Your task to perform on an android device: move an email to a new category in the gmail app Image 0: 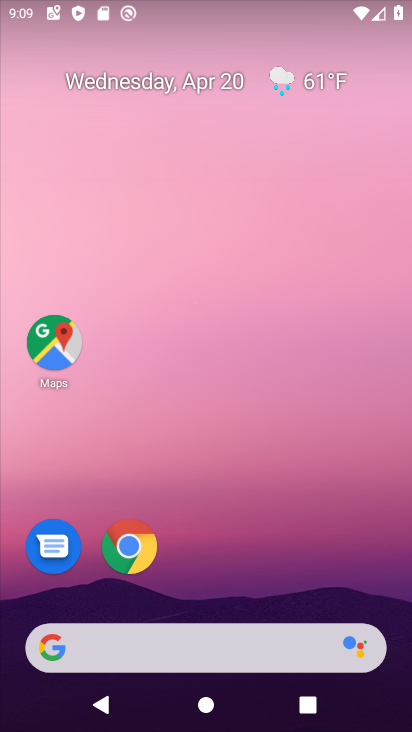
Step 0: drag from (406, 529) to (212, 0)
Your task to perform on an android device: move an email to a new category in the gmail app Image 1: 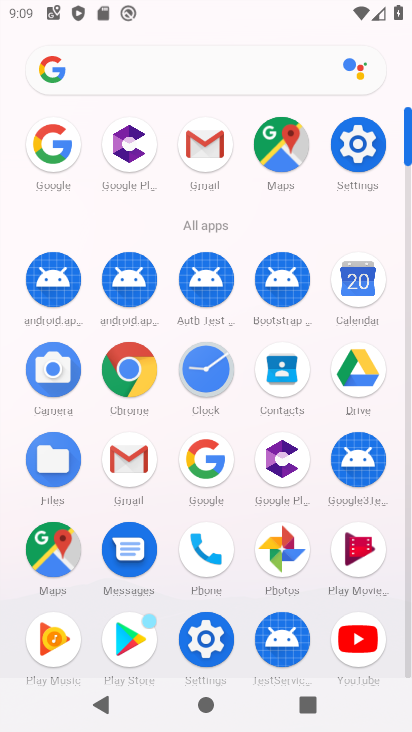
Step 1: click (201, 146)
Your task to perform on an android device: move an email to a new category in the gmail app Image 2: 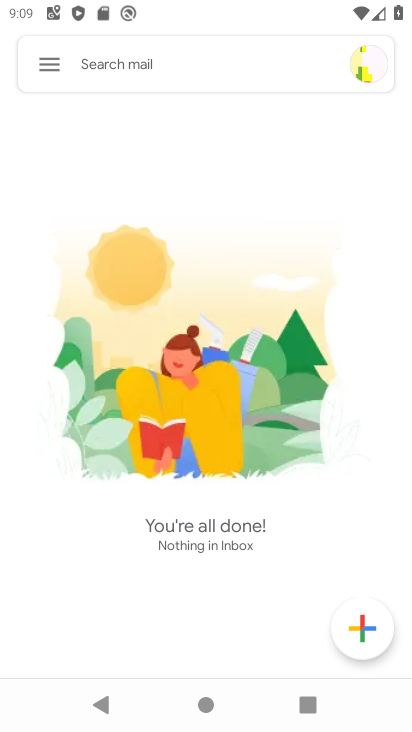
Step 2: task complete